Your task to perform on an android device: check the backup settings in the google photos Image 0: 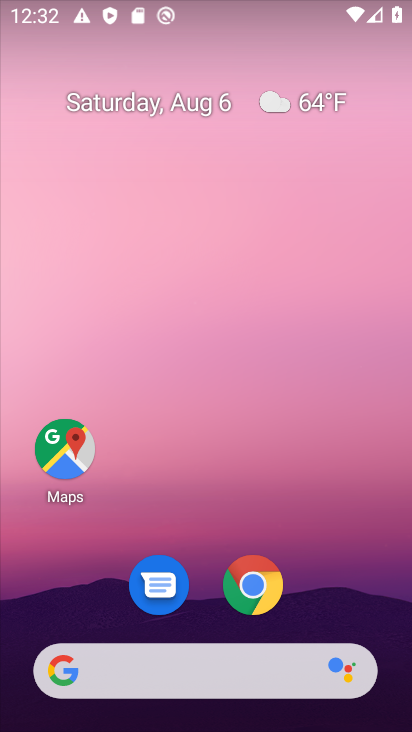
Step 0: drag from (334, 608) to (218, 36)
Your task to perform on an android device: check the backup settings in the google photos Image 1: 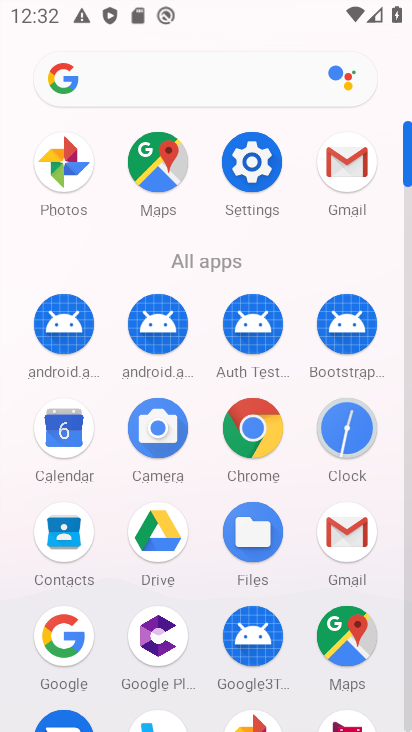
Step 1: click (60, 165)
Your task to perform on an android device: check the backup settings in the google photos Image 2: 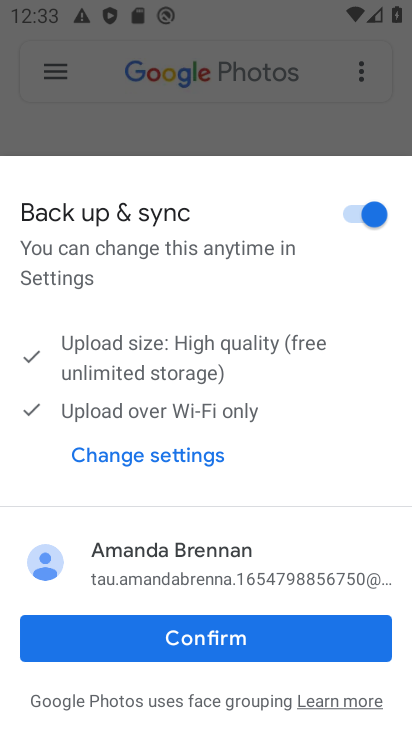
Step 2: click (241, 639)
Your task to perform on an android device: check the backup settings in the google photos Image 3: 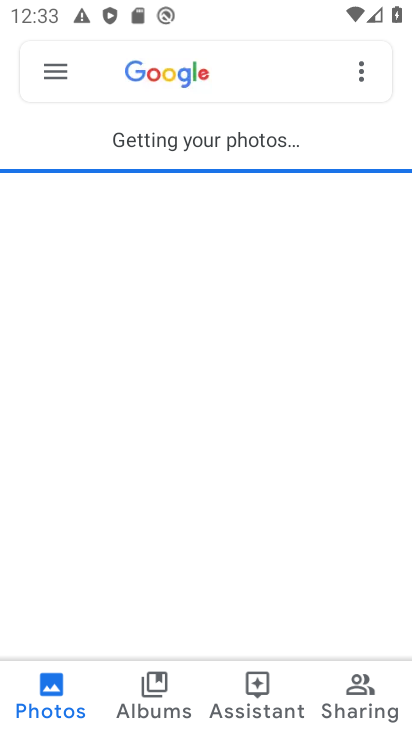
Step 3: click (57, 63)
Your task to perform on an android device: check the backup settings in the google photos Image 4: 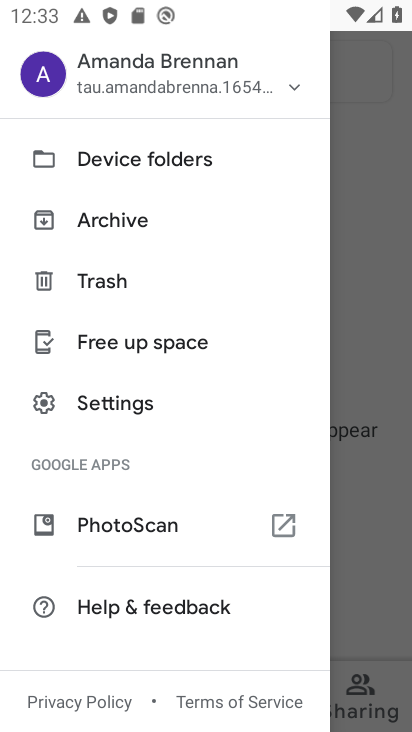
Step 4: click (127, 400)
Your task to perform on an android device: check the backup settings in the google photos Image 5: 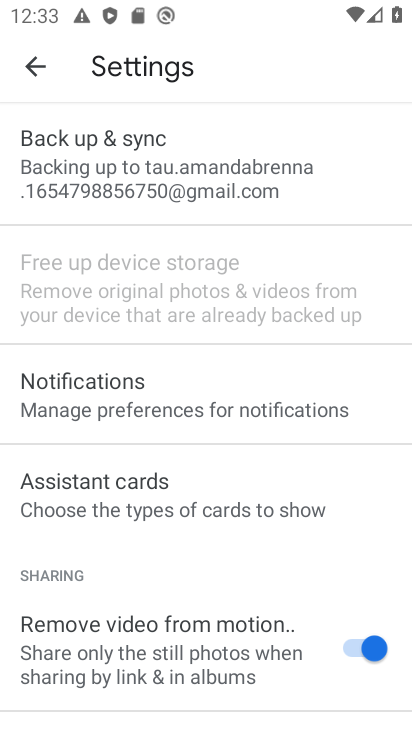
Step 5: click (159, 166)
Your task to perform on an android device: check the backup settings in the google photos Image 6: 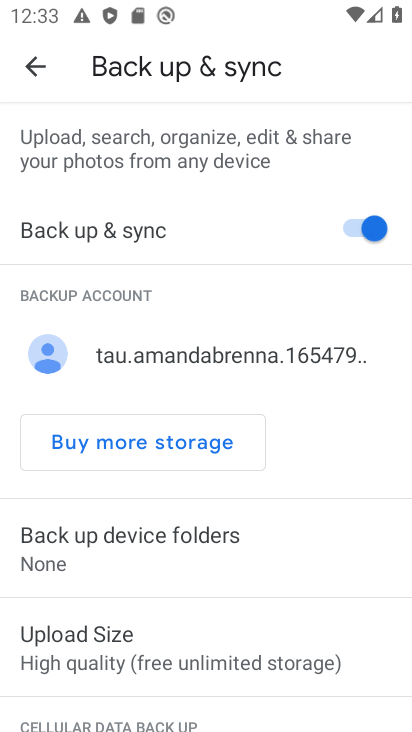
Step 6: task complete